Your task to perform on an android device: Go to location settings Image 0: 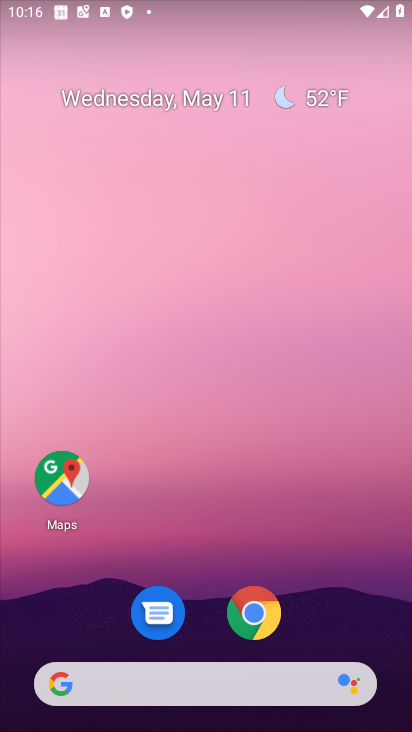
Step 0: drag from (211, 543) to (226, 151)
Your task to perform on an android device: Go to location settings Image 1: 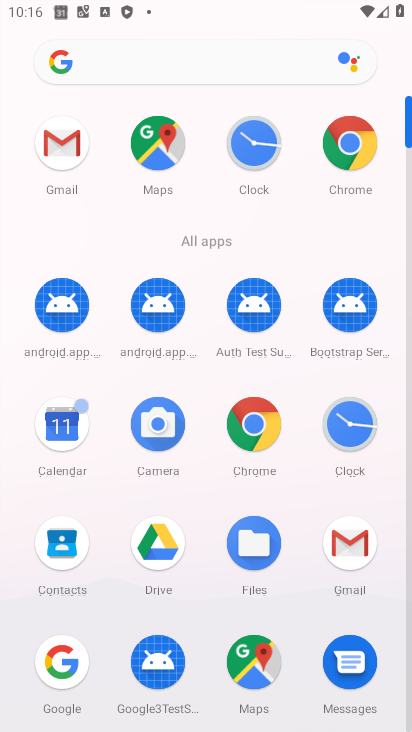
Step 1: drag from (193, 253) to (224, 77)
Your task to perform on an android device: Go to location settings Image 2: 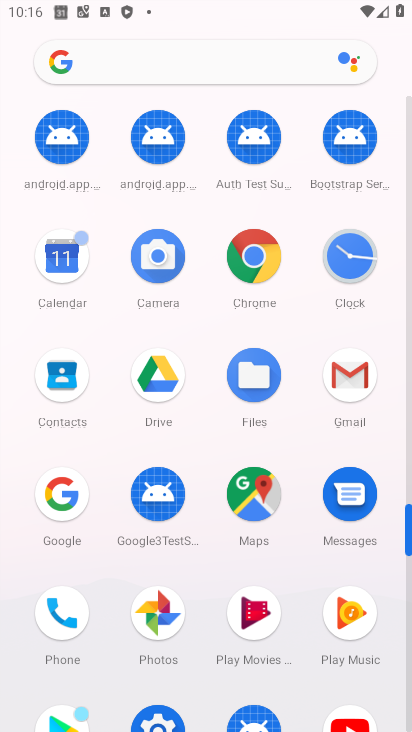
Step 2: drag from (217, 211) to (216, 21)
Your task to perform on an android device: Go to location settings Image 3: 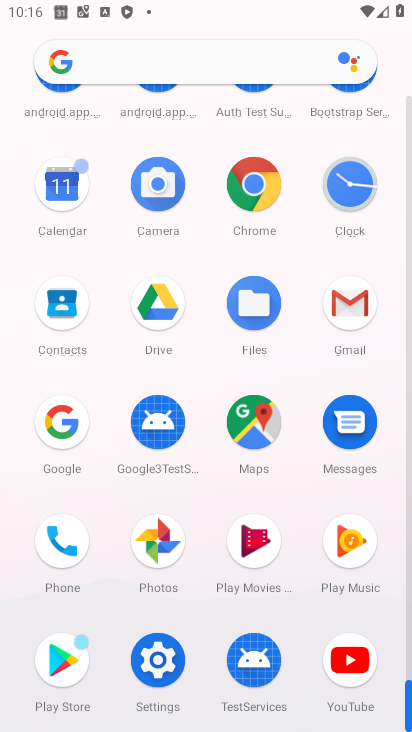
Step 3: click (152, 666)
Your task to perform on an android device: Go to location settings Image 4: 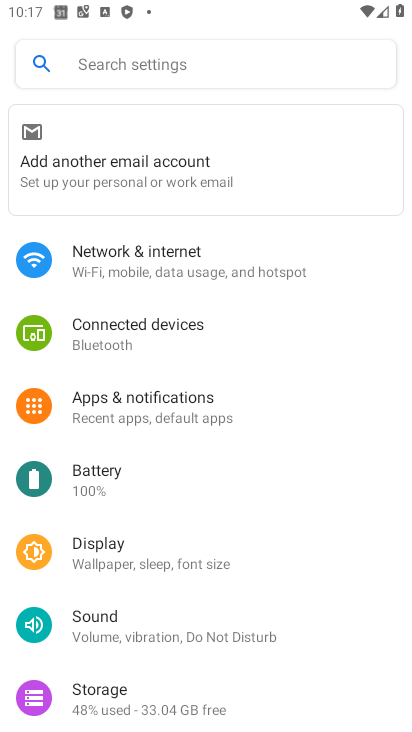
Step 4: drag from (180, 580) to (188, 199)
Your task to perform on an android device: Go to location settings Image 5: 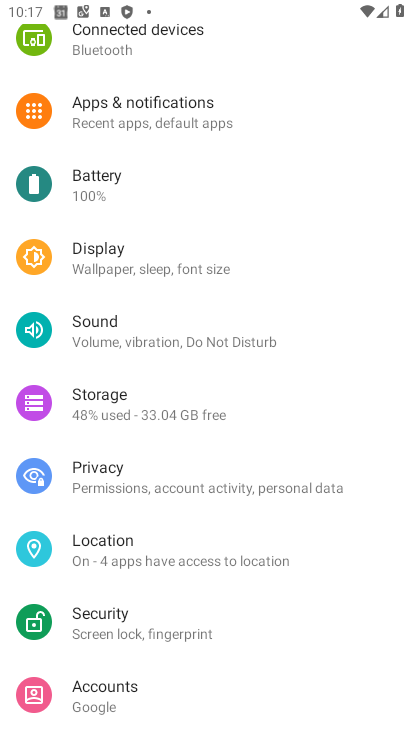
Step 5: drag from (160, 319) to (215, 137)
Your task to perform on an android device: Go to location settings Image 6: 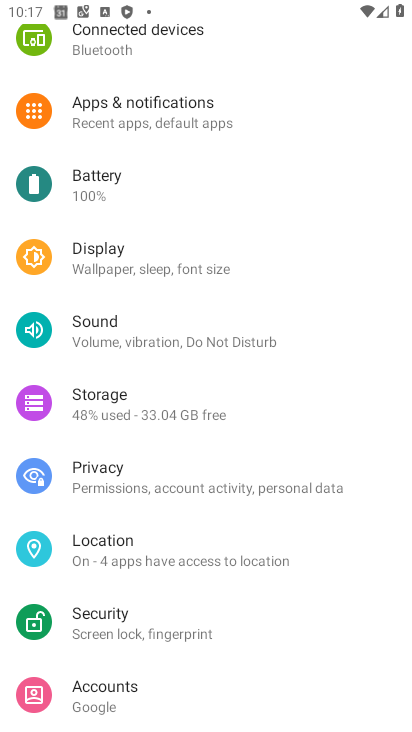
Step 6: click (159, 555)
Your task to perform on an android device: Go to location settings Image 7: 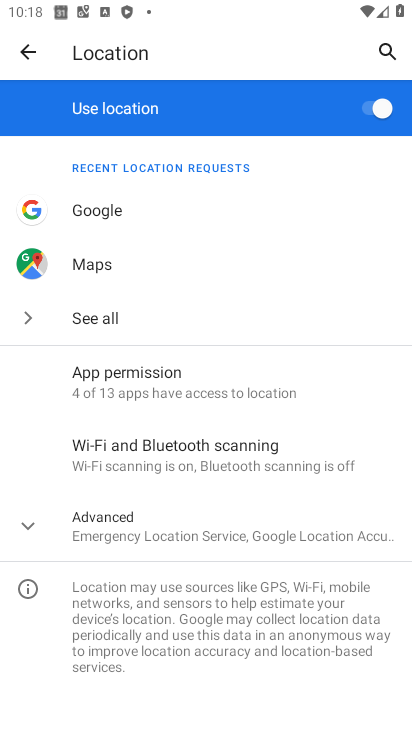
Step 7: task complete